Your task to perform on an android device: open a bookmark in the chrome app Image 0: 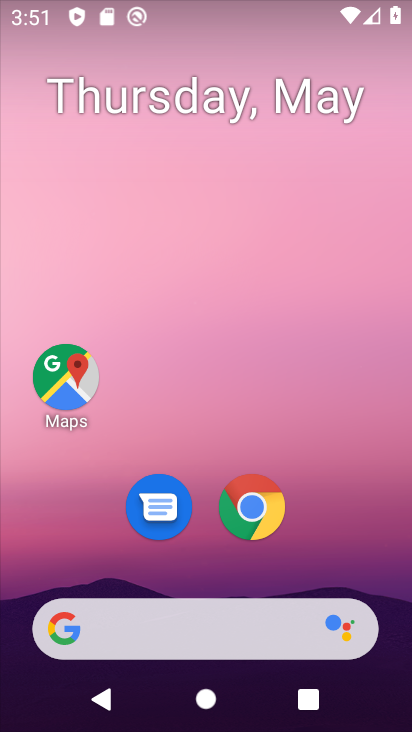
Step 0: drag from (308, 541) to (247, 0)
Your task to perform on an android device: open a bookmark in the chrome app Image 1: 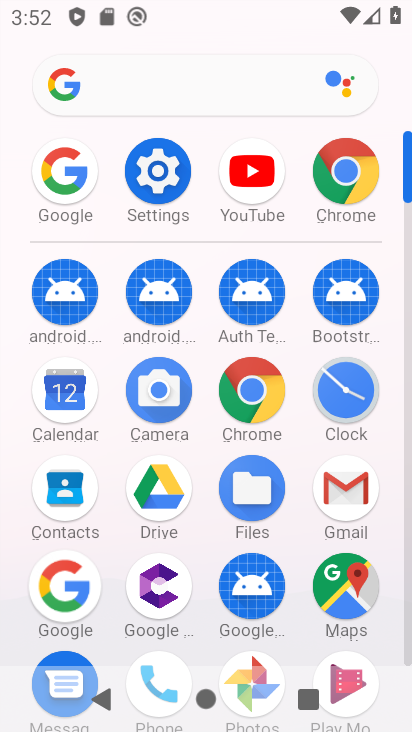
Step 1: click (339, 189)
Your task to perform on an android device: open a bookmark in the chrome app Image 2: 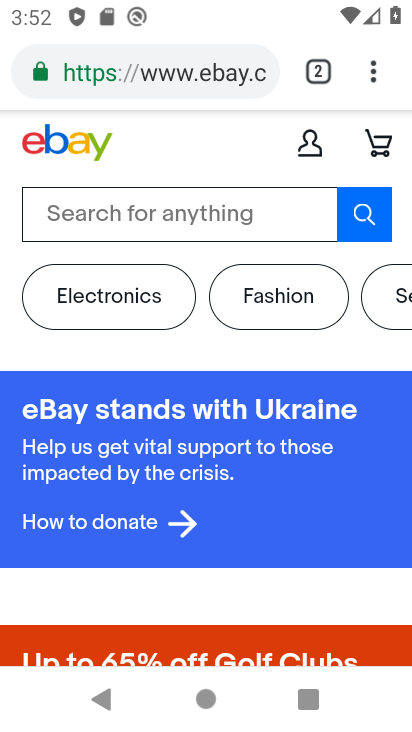
Step 2: drag from (371, 69) to (166, 275)
Your task to perform on an android device: open a bookmark in the chrome app Image 3: 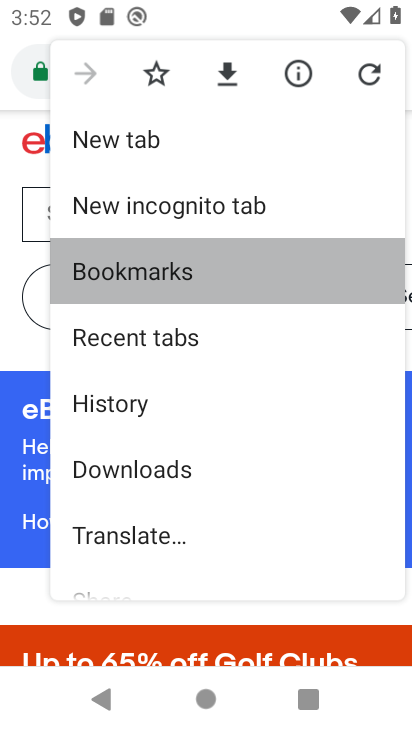
Step 3: click (162, 276)
Your task to perform on an android device: open a bookmark in the chrome app Image 4: 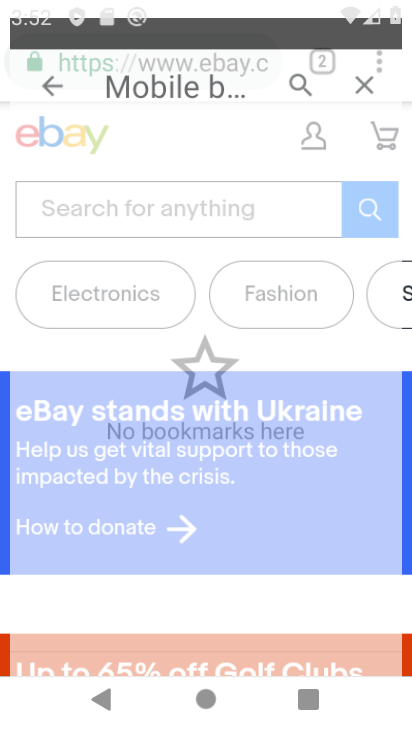
Step 4: click (162, 277)
Your task to perform on an android device: open a bookmark in the chrome app Image 5: 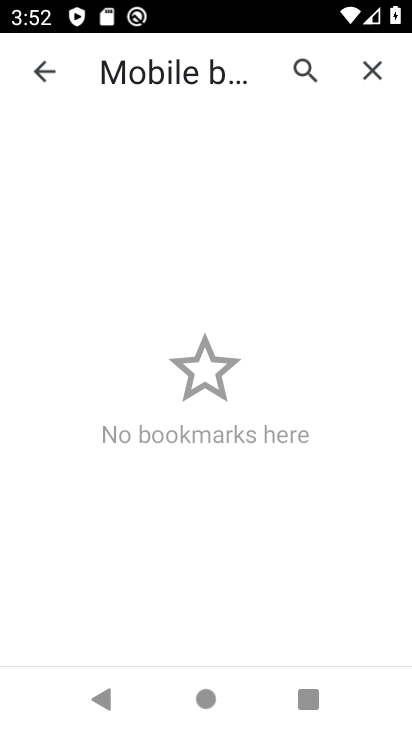
Step 5: task complete